Your task to perform on an android device: Show me popular videos on Youtube Image 0: 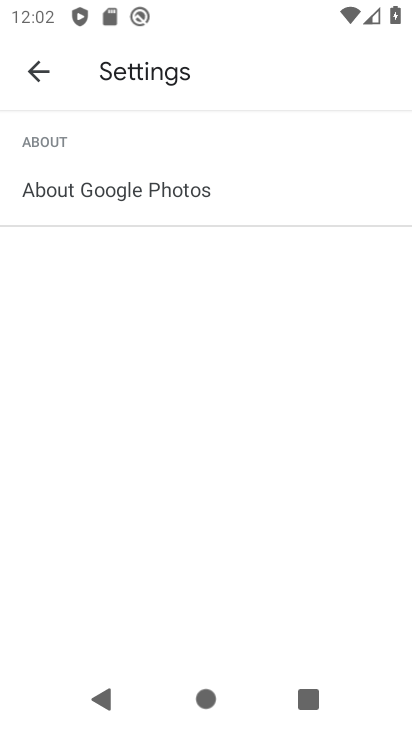
Step 0: press home button
Your task to perform on an android device: Show me popular videos on Youtube Image 1: 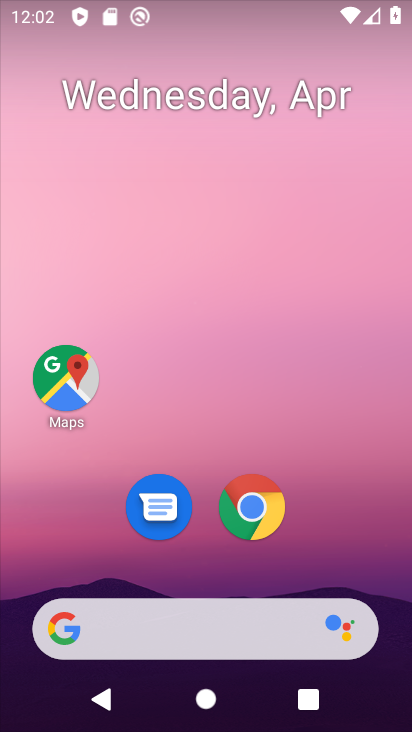
Step 1: drag from (217, 568) to (227, 162)
Your task to perform on an android device: Show me popular videos on Youtube Image 2: 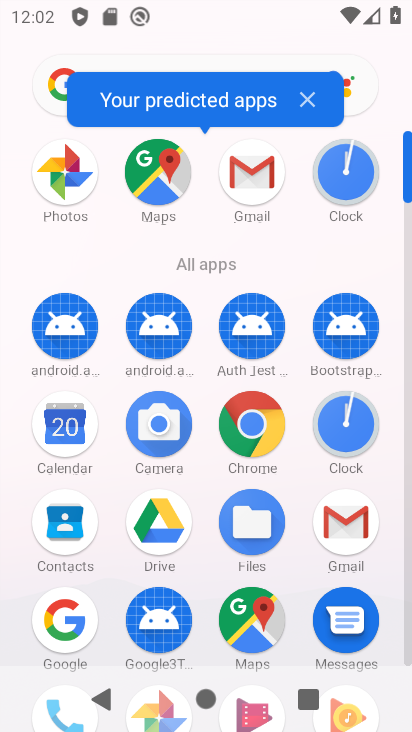
Step 2: drag from (197, 569) to (202, 258)
Your task to perform on an android device: Show me popular videos on Youtube Image 3: 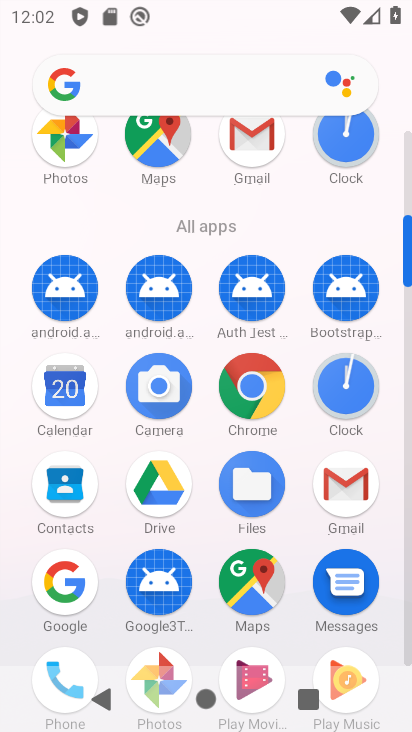
Step 3: drag from (215, 455) to (207, 253)
Your task to perform on an android device: Show me popular videos on Youtube Image 4: 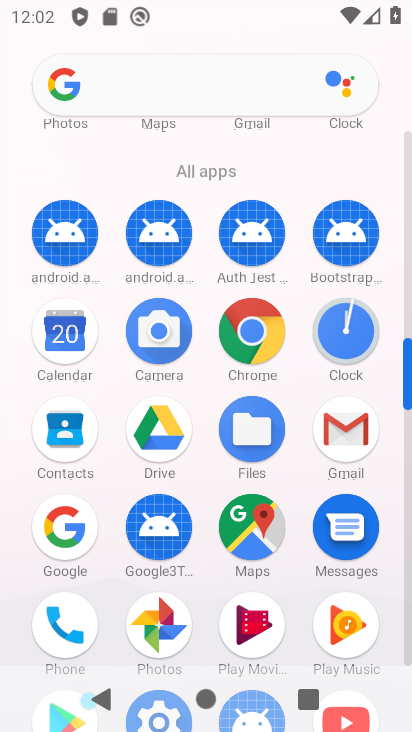
Step 4: drag from (200, 353) to (205, 286)
Your task to perform on an android device: Show me popular videos on Youtube Image 5: 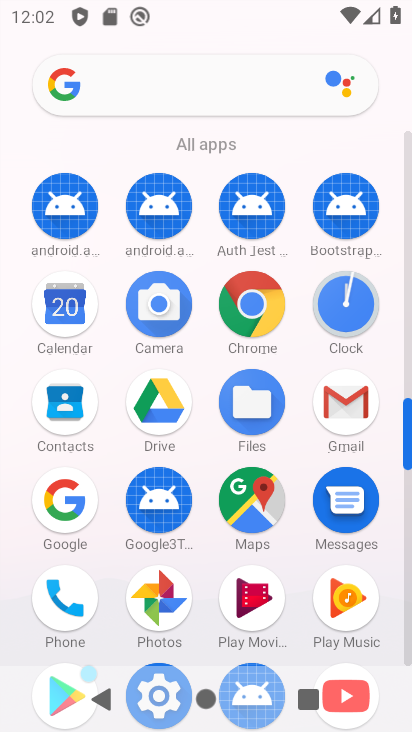
Step 5: drag from (204, 555) to (208, 265)
Your task to perform on an android device: Show me popular videos on Youtube Image 6: 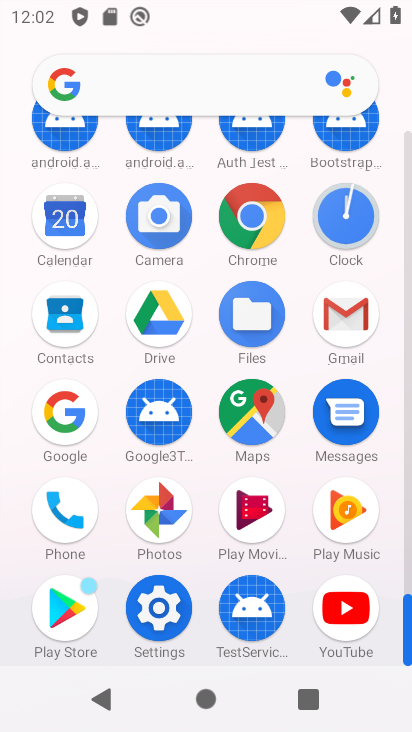
Step 6: click (338, 604)
Your task to perform on an android device: Show me popular videos on Youtube Image 7: 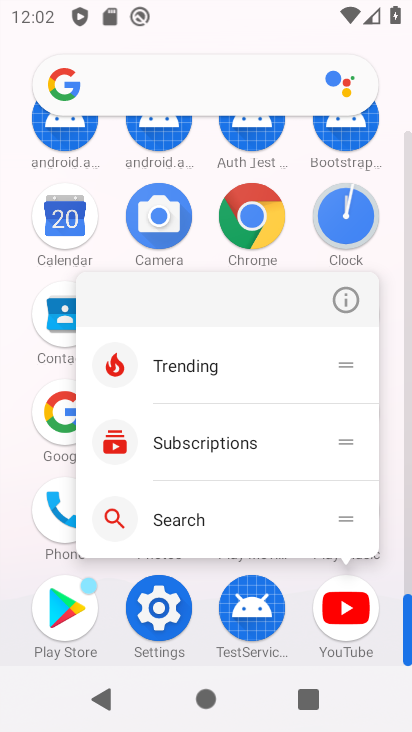
Step 7: click (338, 604)
Your task to perform on an android device: Show me popular videos on Youtube Image 8: 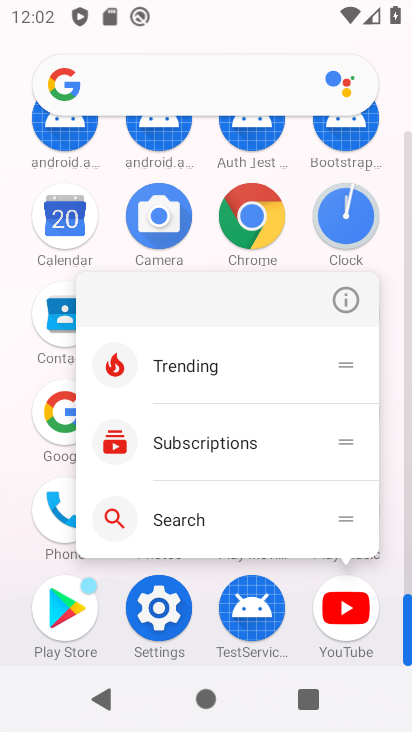
Step 8: click (337, 605)
Your task to perform on an android device: Show me popular videos on Youtube Image 9: 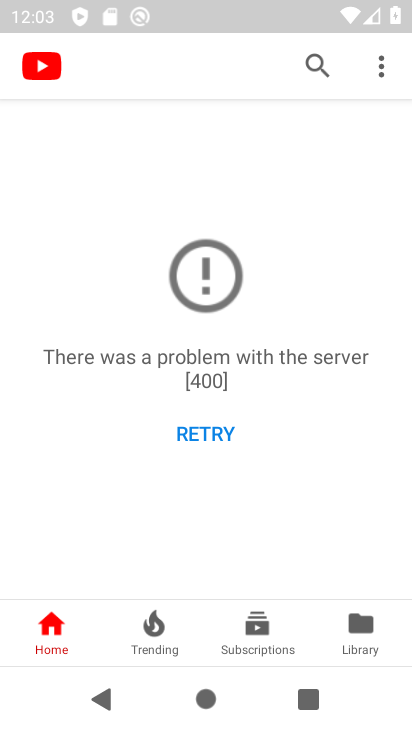
Step 9: click (153, 615)
Your task to perform on an android device: Show me popular videos on Youtube Image 10: 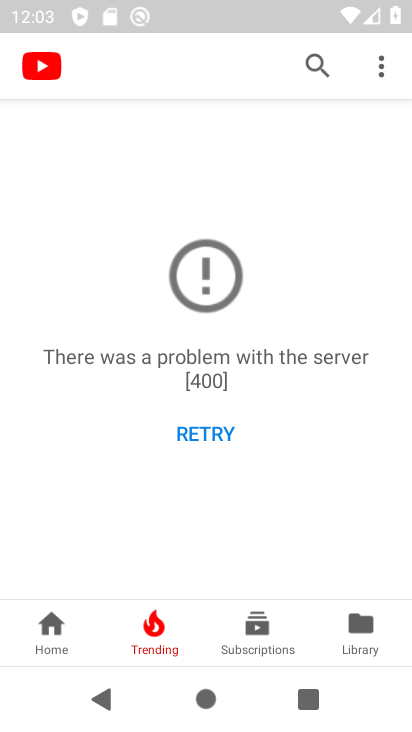
Step 10: click (211, 426)
Your task to perform on an android device: Show me popular videos on Youtube Image 11: 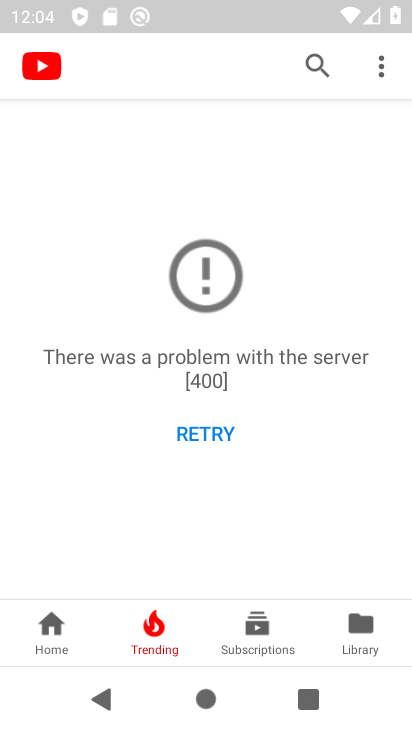
Step 11: task complete